Your task to perform on an android device: Search for hotels in Orlando Image 0: 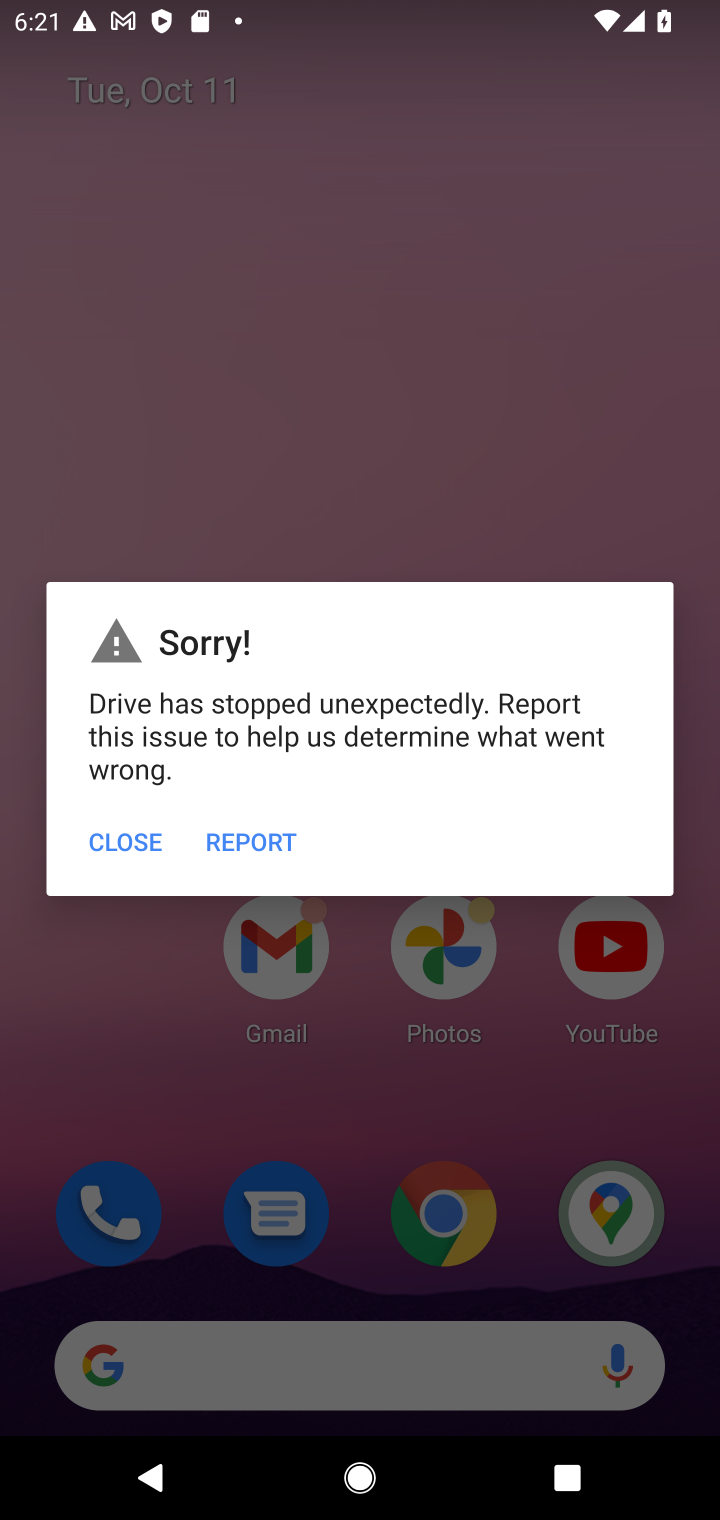
Step 0: click (102, 855)
Your task to perform on an android device: Search for hotels in Orlando Image 1: 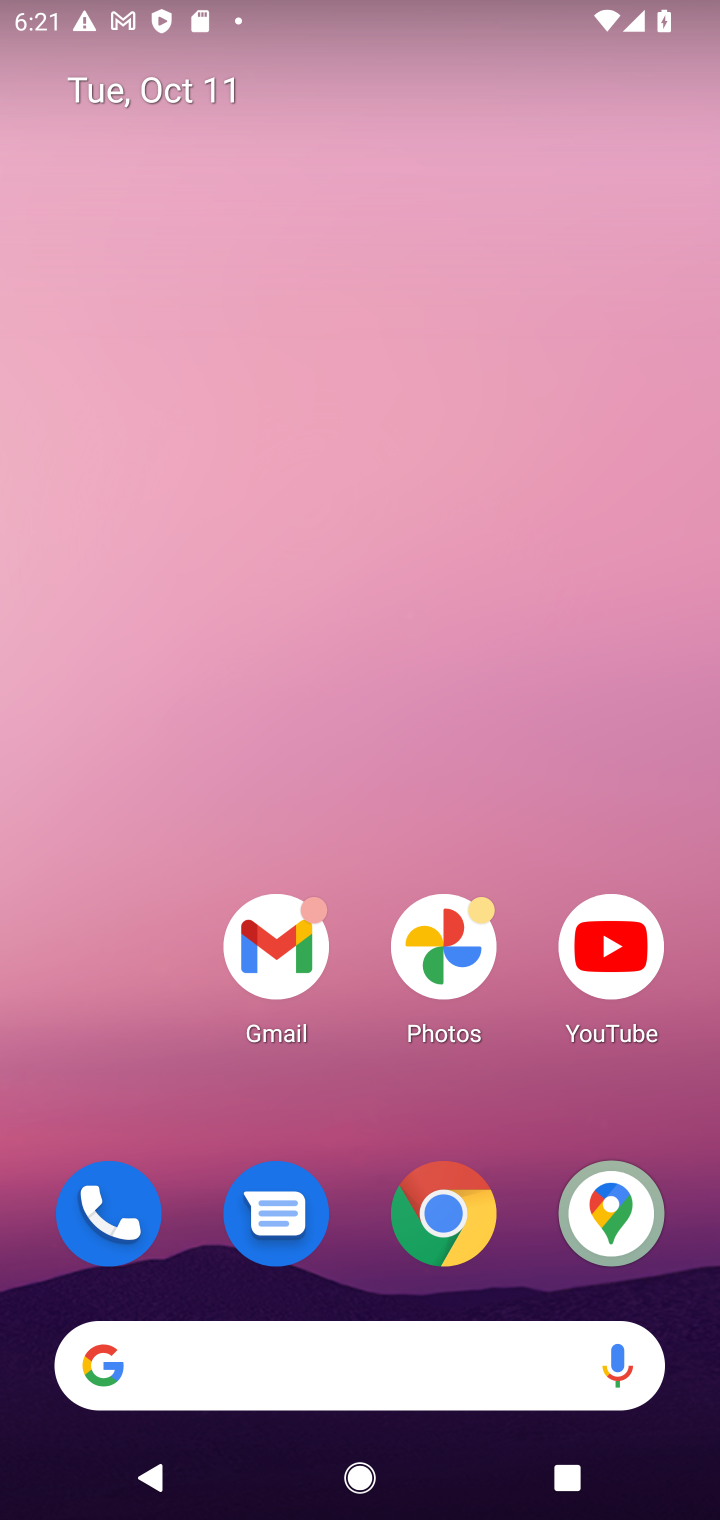
Step 1: click (170, 1348)
Your task to perform on an android device: Search for hotels in Orlando Image 2: 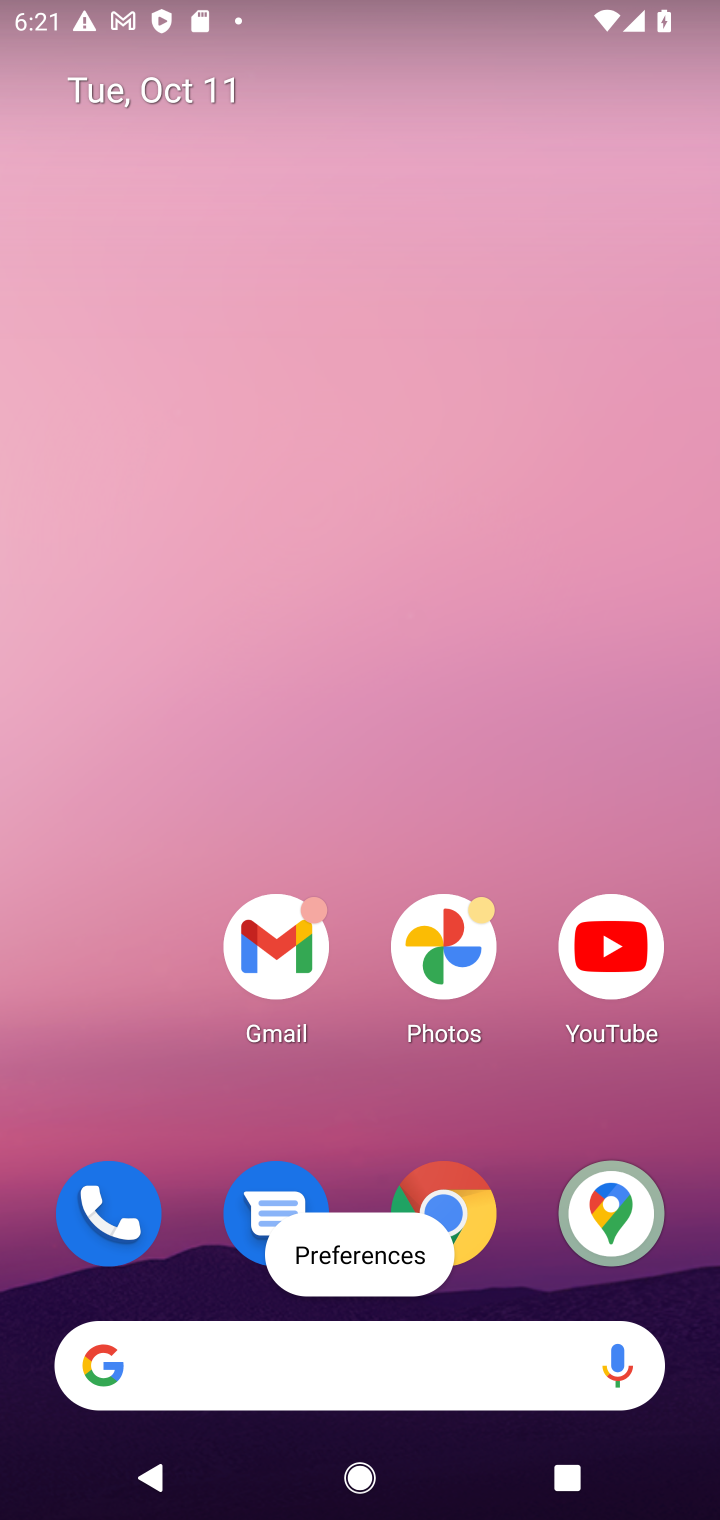
Step 2: click (251, 1385)
Your task to perform on an android device: Search for hotels in Orlando Image 3: 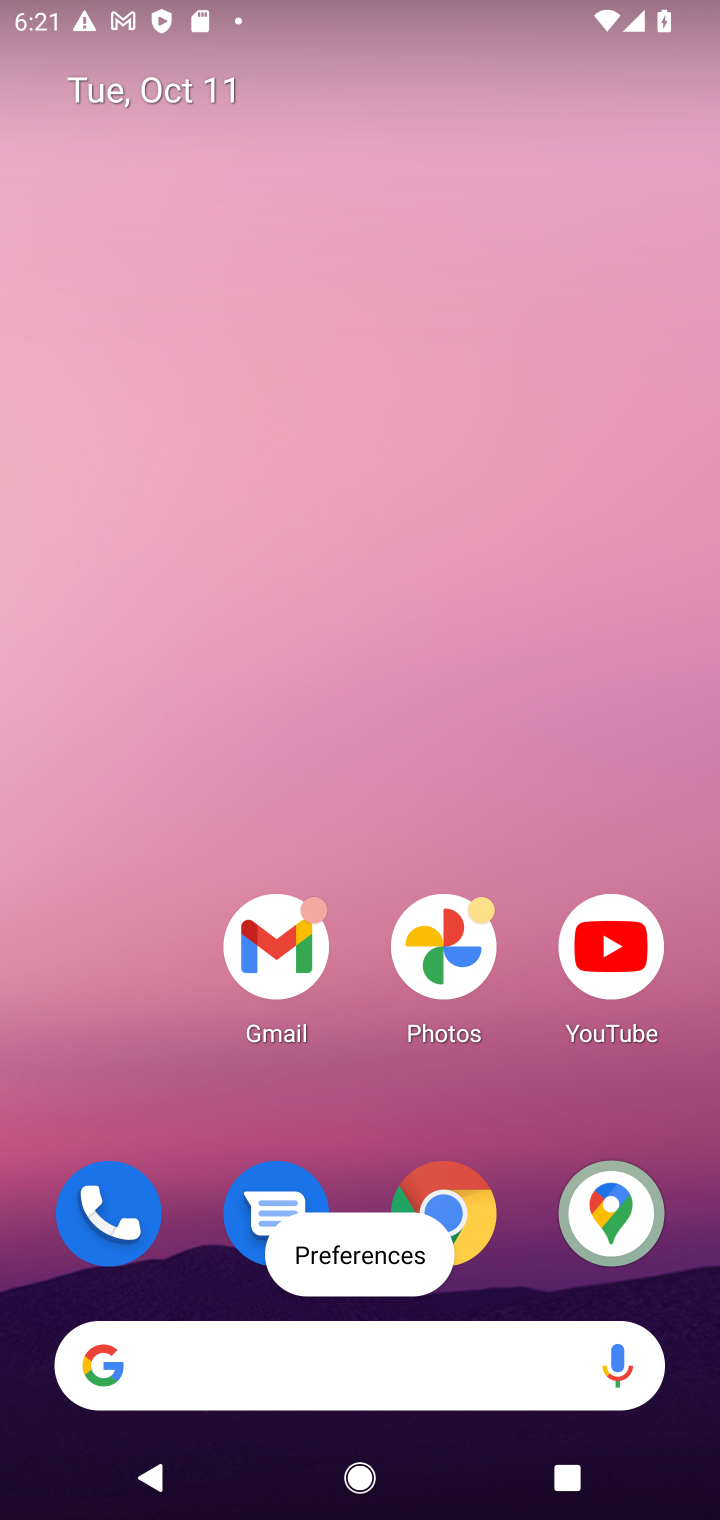
Step 3: click (249, 1379)
Your task to perform on an android device: Search for hotels in Orlando Image 4: 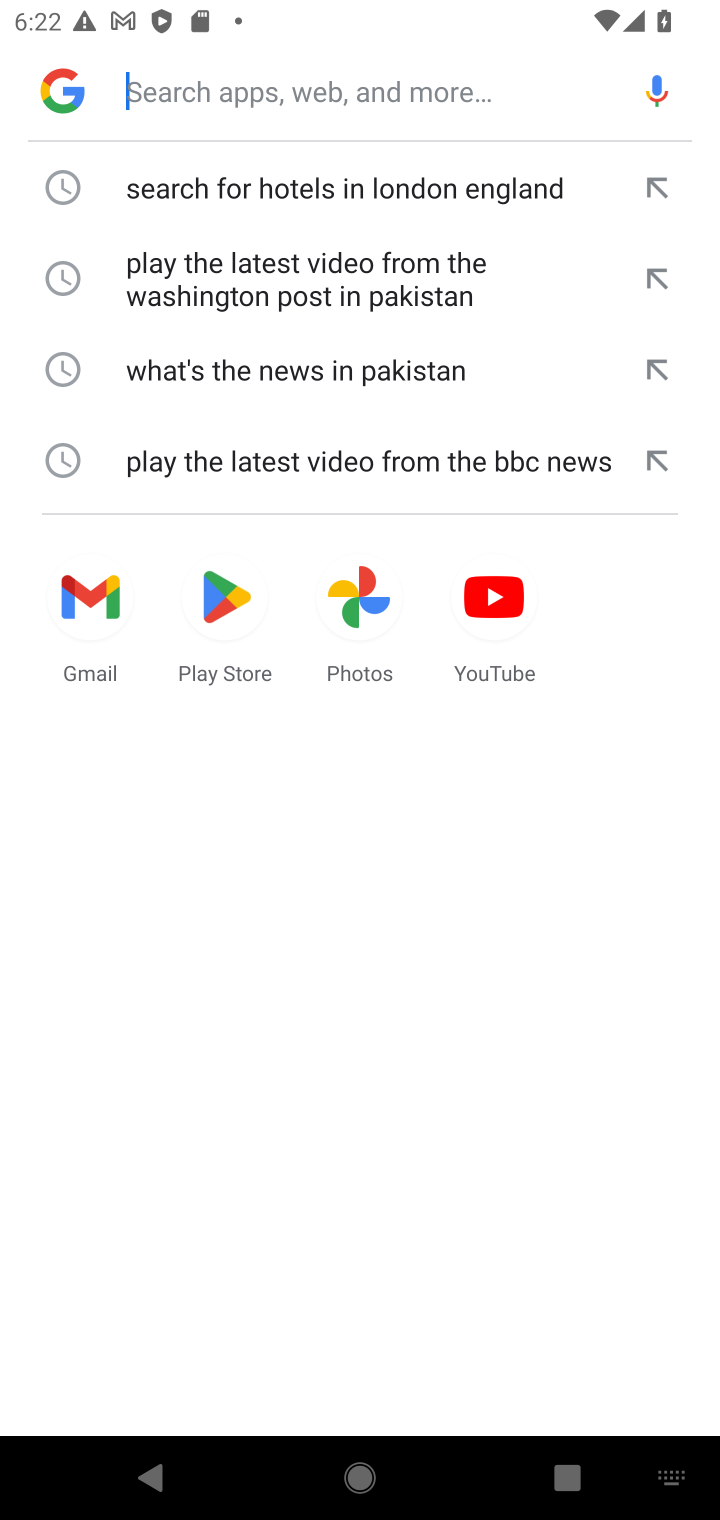
Step 4: type "Search for hotels in Orlando"
Your task to perform on an android device: Search for hotels in Orlando Image 5: 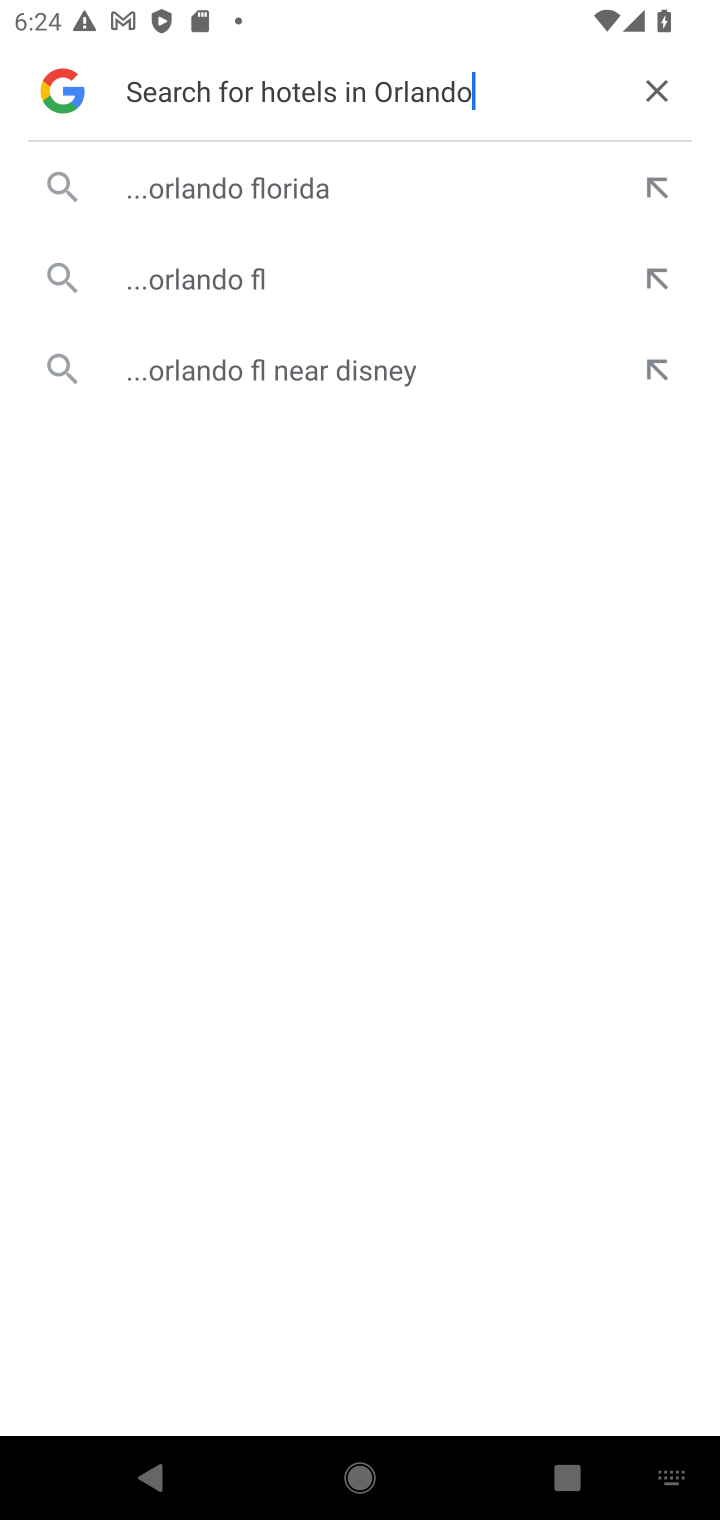
Step 5: click (232, 186)
Your task to perform on an android device: Search for hotels in Orlando Image 6: 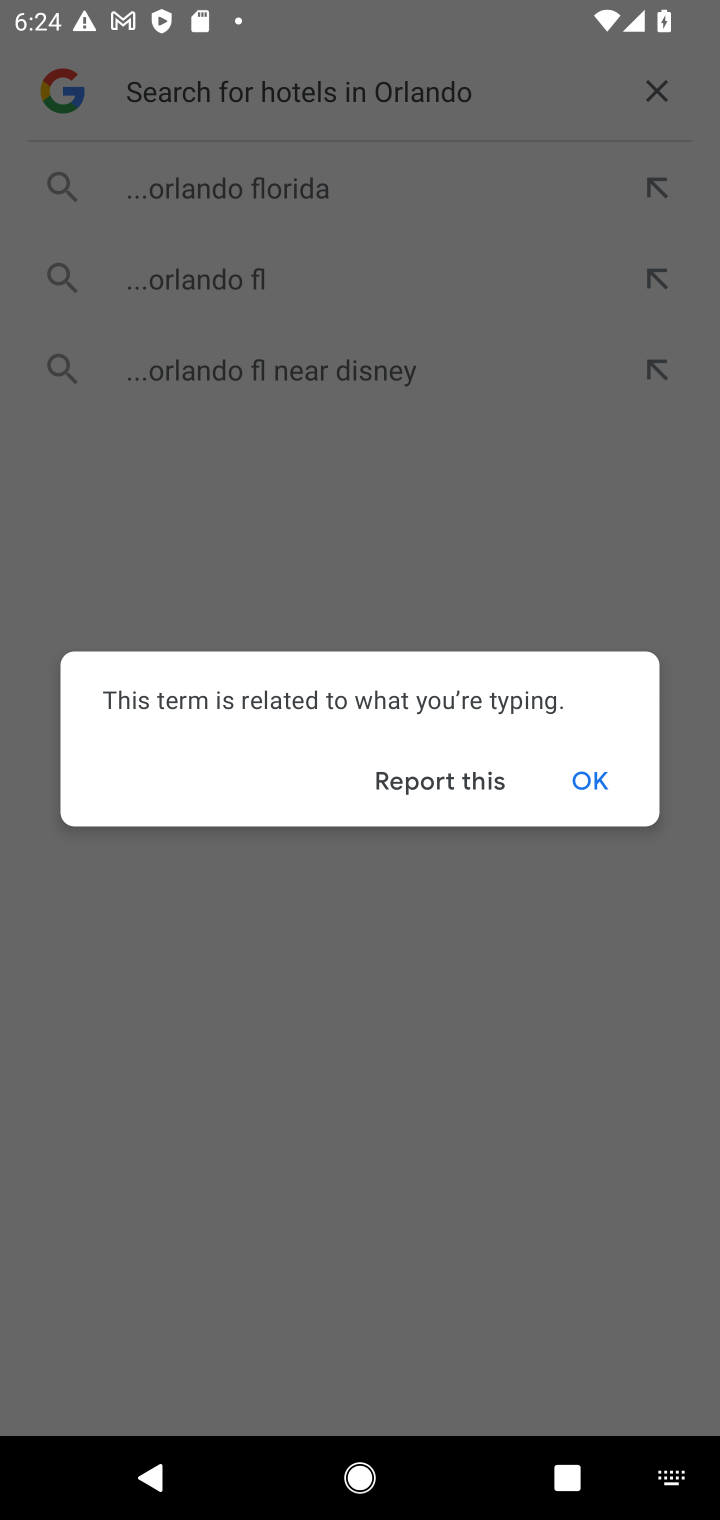
Step 6: click (585, 792)
Your task to perform on an android device: Search for hotels in Orlando Image 7: 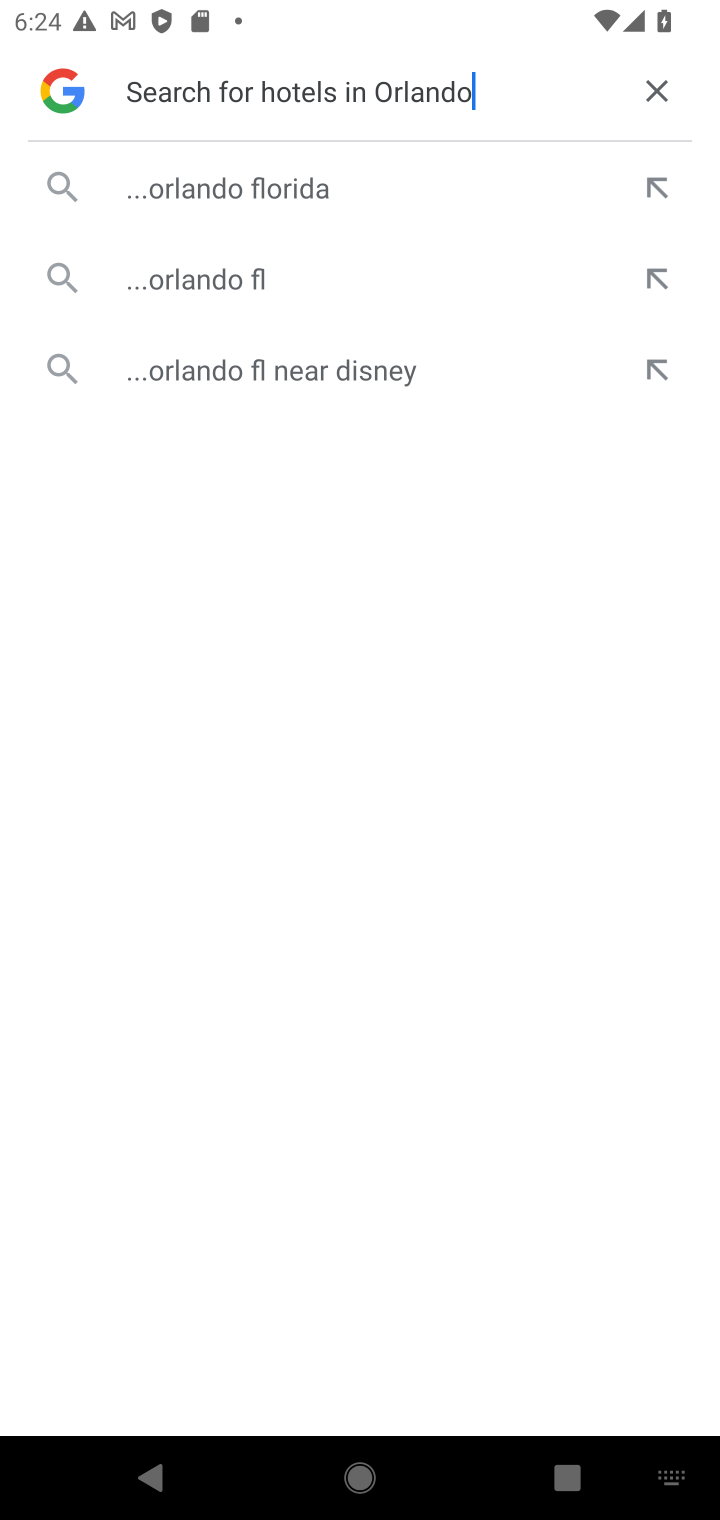
Step 7: click (298, 192)
Your task to perform on an android device: Search for hotels in Orlando Image 8: 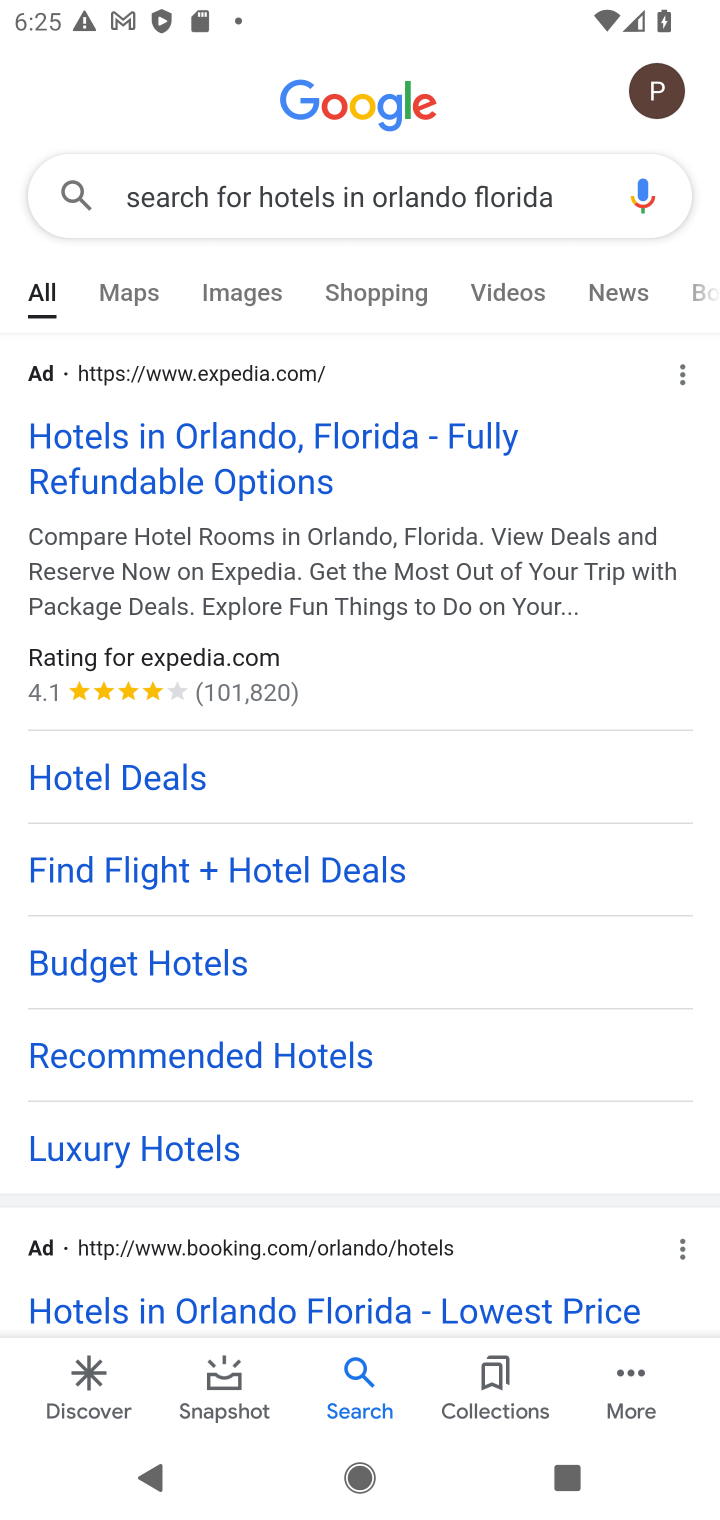
Step 8: click (243, 457)
Your task to perform on an android device: Search for hotels in Orlando Image 9: 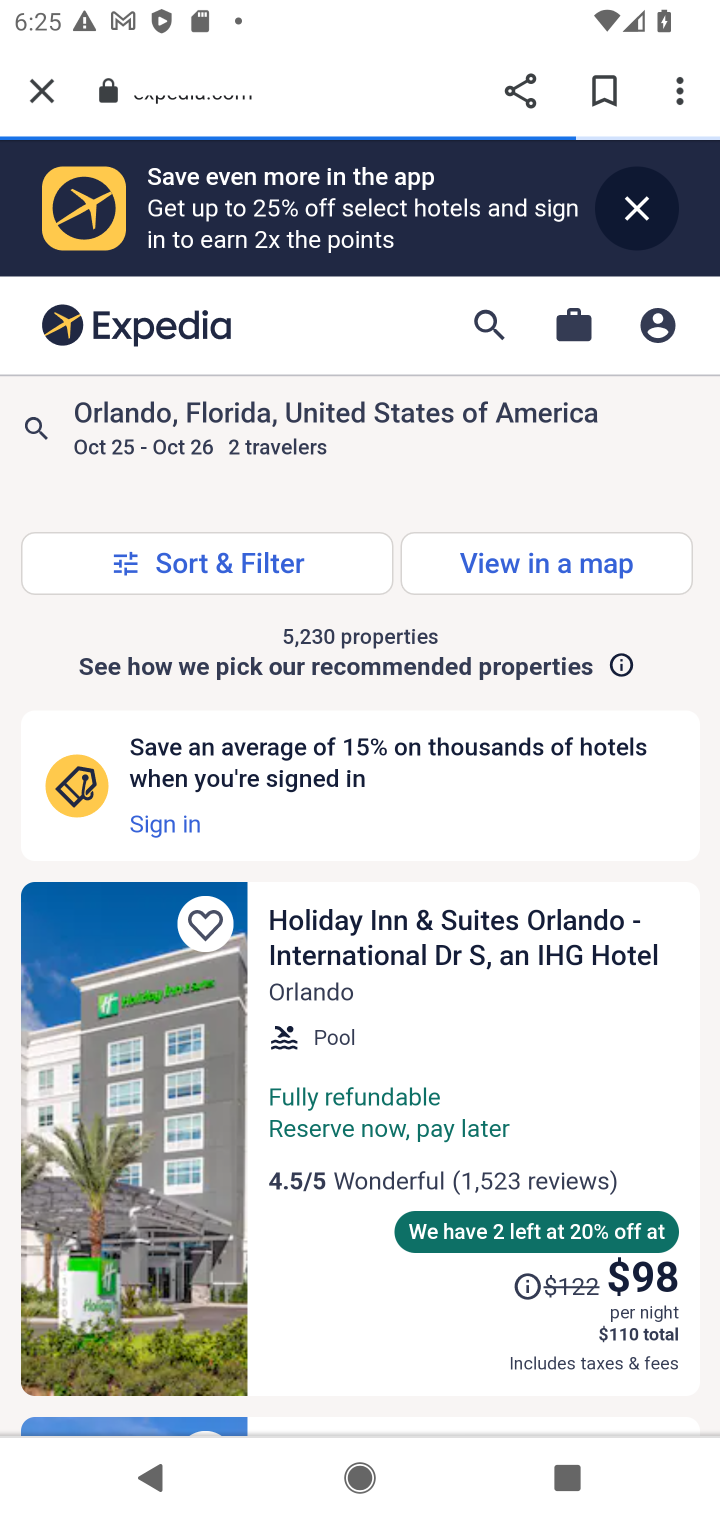
Step 9: task complete